Your task to perform on an android device: see creations saved in the google photos Image 0: 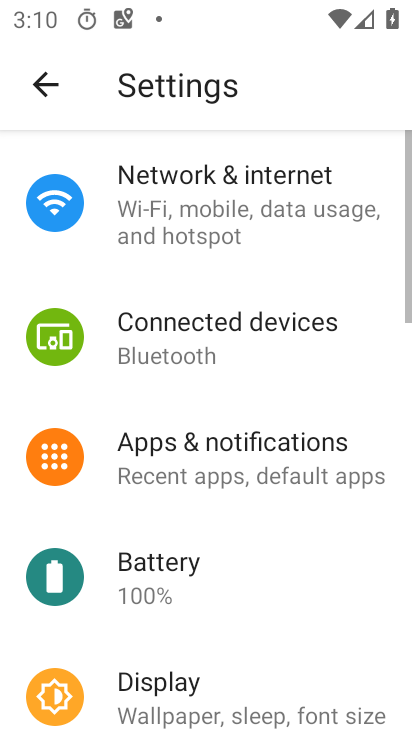
Step 0: press home button
Your task to perform on an android device: see creations saved in the google photos Image 1: 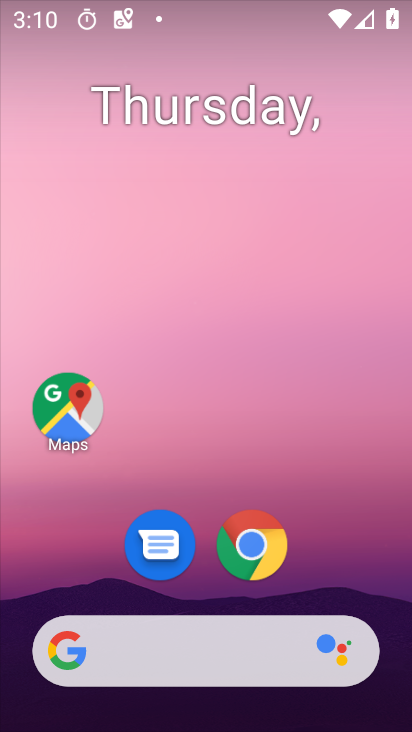
Step 1: drag from (194, 726) to (181, 106)
Your task to perform on an android device: see creations saved in the google photos Image 2: 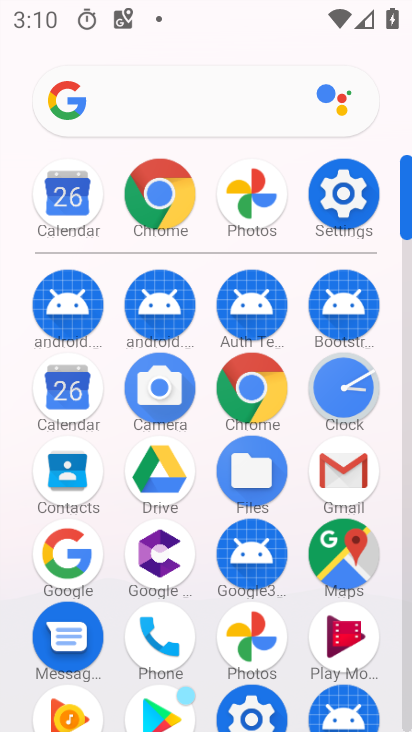
Step 2: click (250, 633)
Your task to perform on an android device: see creations saved in the google photos Image 3: 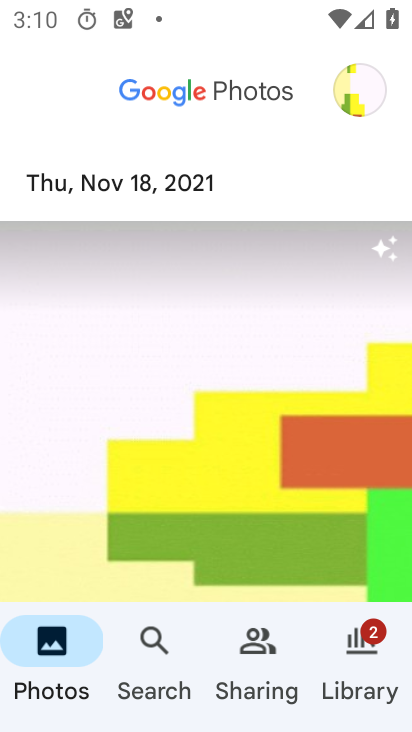
Step 3: click (151, 636)
Your task to perform on an android device: see creations saved in the google photos Image 4: 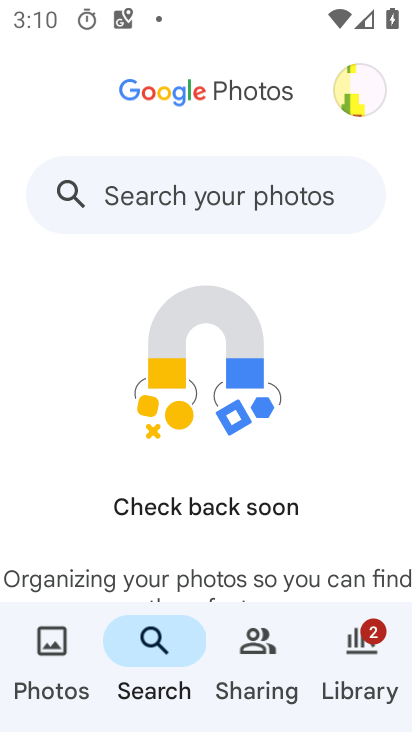
Step 4: click (223, 193)
Your task to perform on an android device: see creations saved in the google photos Image 5: 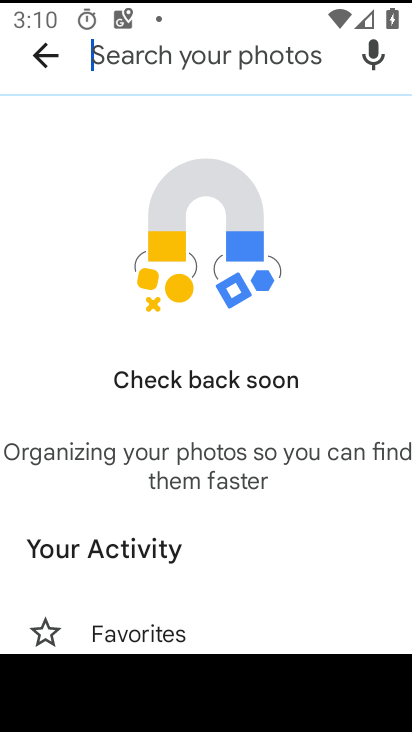
Step 5: drag from (173, 621) to (175, 197)
Your task to perform on an android device: see creations saved in the google photos Image 6: 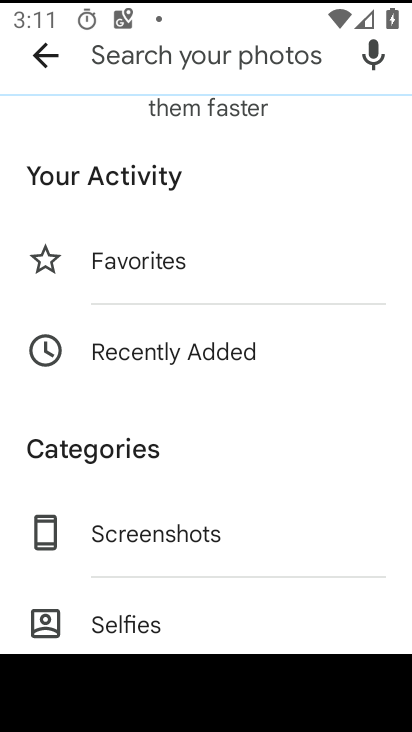
Step 6: drag from (159, 616) to (175, 241)
Your task to perform on an android device: see creations saved in the google photos Image 7: 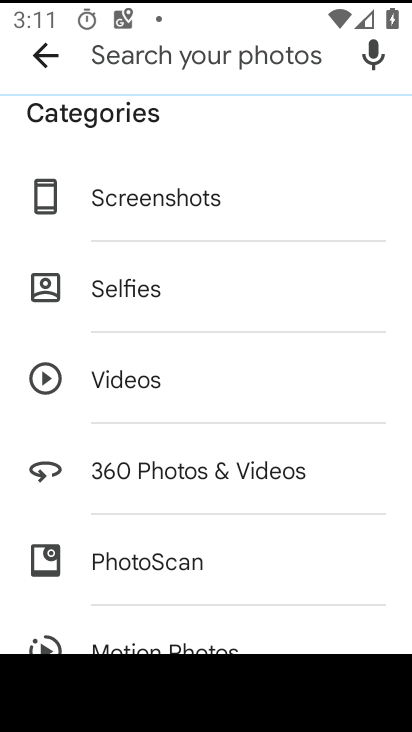
Step 7: drag from (159, 614) to (174, 260)
Your task to perform on an android device: see creations saved in the google photos Image 8: 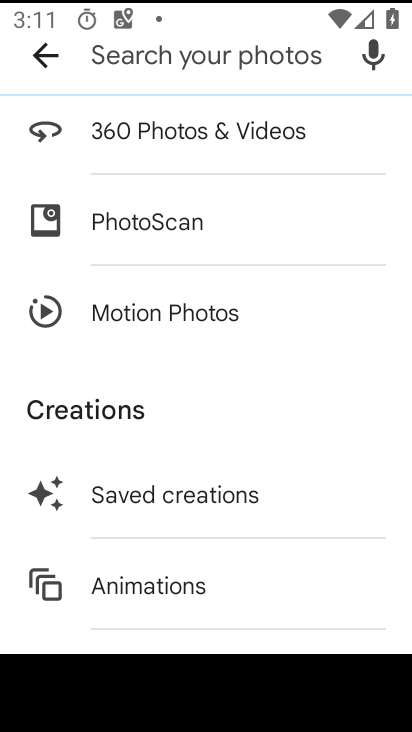
Step 8: click (152, 496)
Your task to perform on an android device: see creations saved in the google photos Image 9: 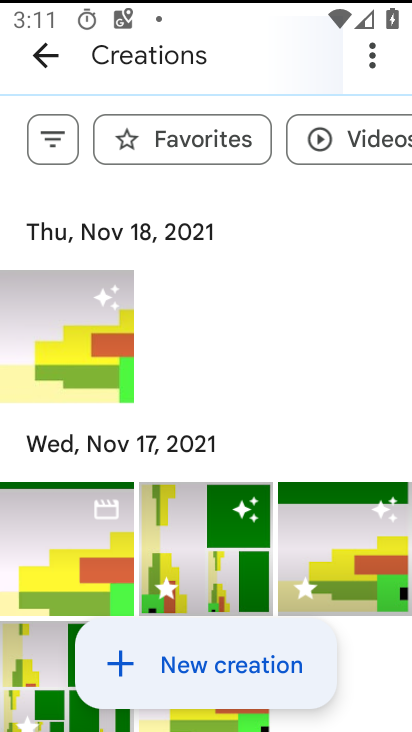
Step 9: task complete